Your task to perform on an android device: Open Chrome and go to the settings page Image 0: 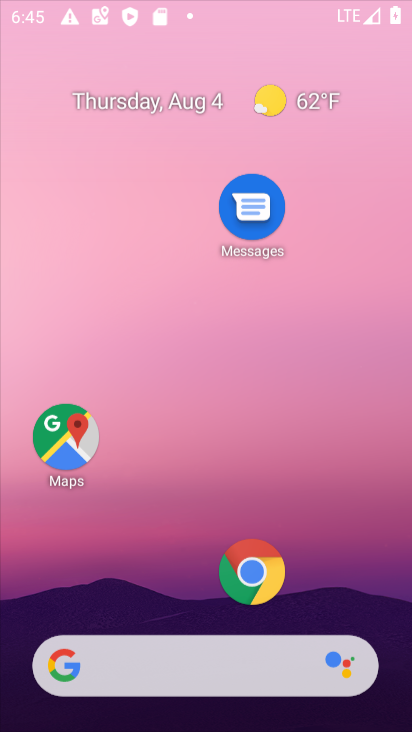
Step 0: press home button
Your task to perform on an android device: Open Chrome and go to the settings page Image 1: 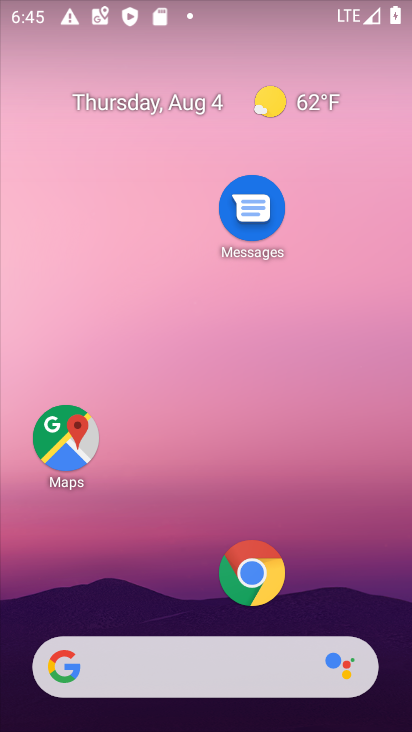
Step 1: drag from (200, 589) to (251, 105)
Your task to perform on an android device: Open Chrome and go to the settings page Image 2: 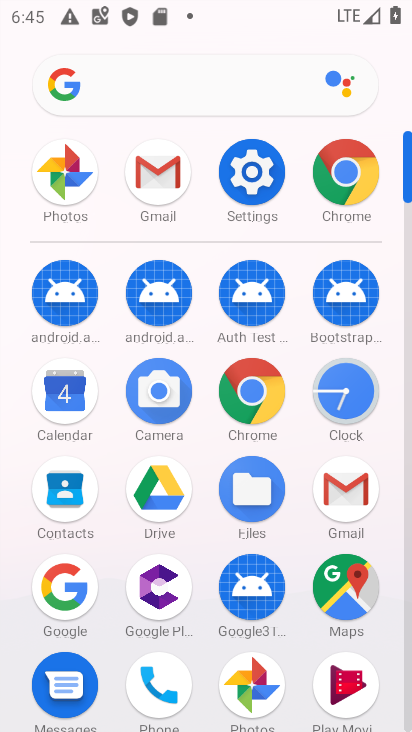
Step 2: click (342, 168)
Your task to perform on an android device: Open Chrome and go to the settings page Image 3: 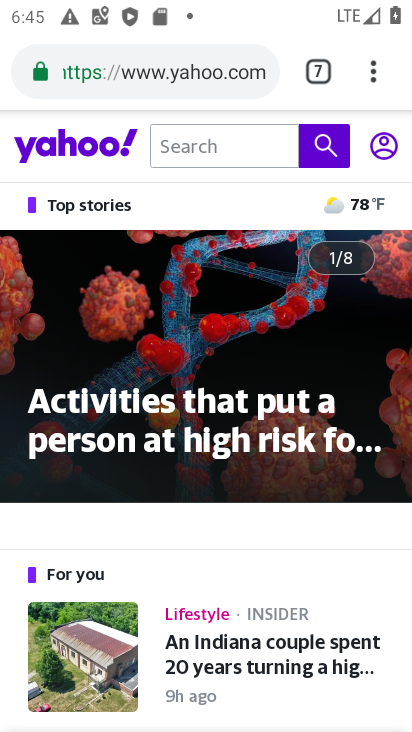
Step 3: task complete